Your task to perform on an android device: move a message to another label in the gmail app Image 0: 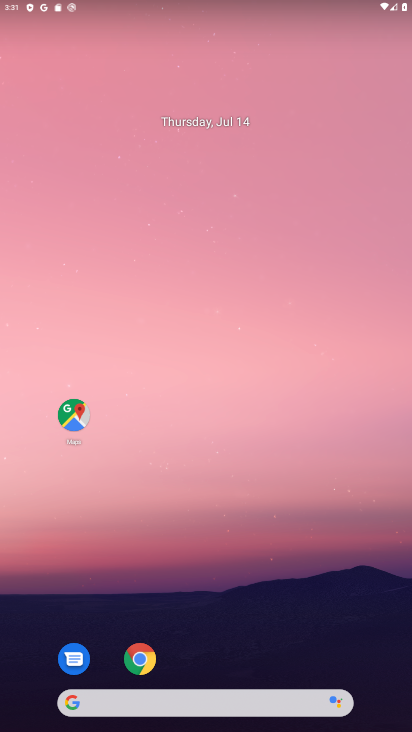
Step 0: drag from (284, 630) to (293, 132)
Your task to perform on an android device: move a message to another label in the gmail app Image 1: 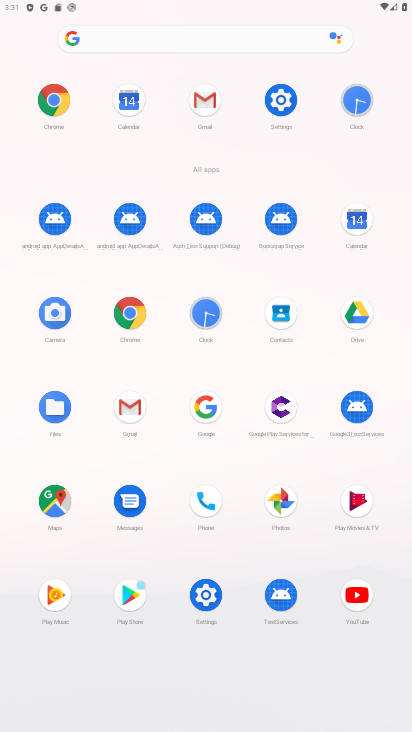
Step 1: click (130, 406)
Your task to perform on an android device: move a message to another label in the gmail app Image 2: 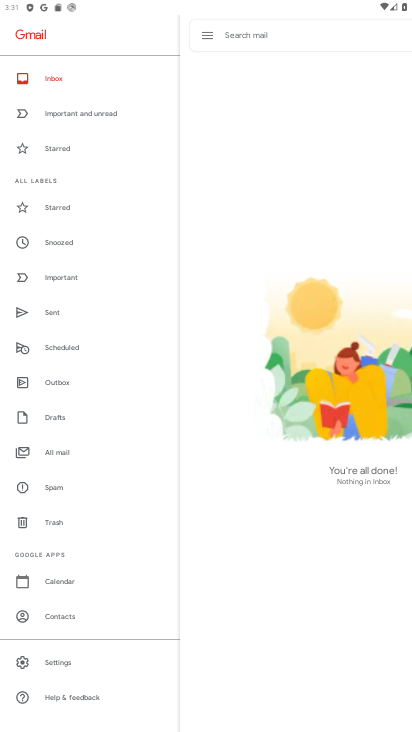
Step 2: drag from (131, 250) to (139, 365)
Your task to perform on an android device: move a message to another label in the gmail app Image 3: 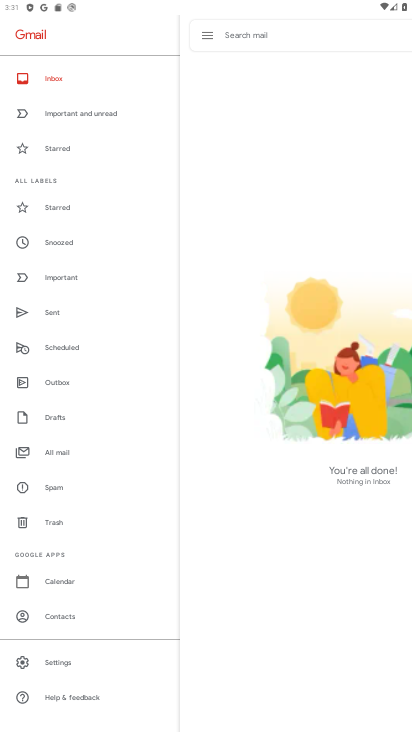
Step 3: click (61, 461)
Your task to perform on an android device: move a message to another label in the gmail app Image 4: 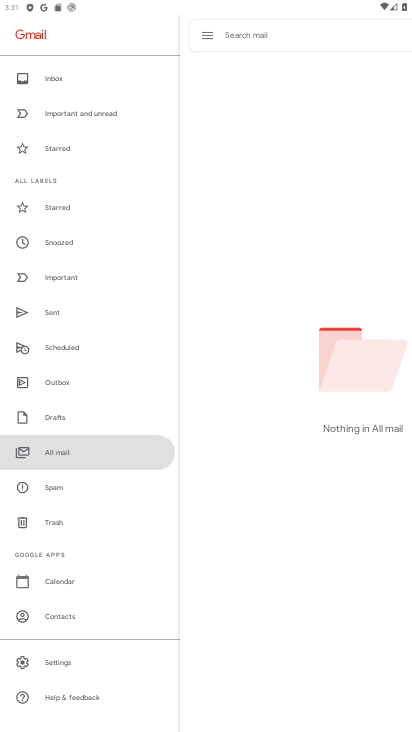
Step 4: task complete